Your task to perform on an android device: Add "usb-c to usb-b" to the cart on bestbuy Image 0: 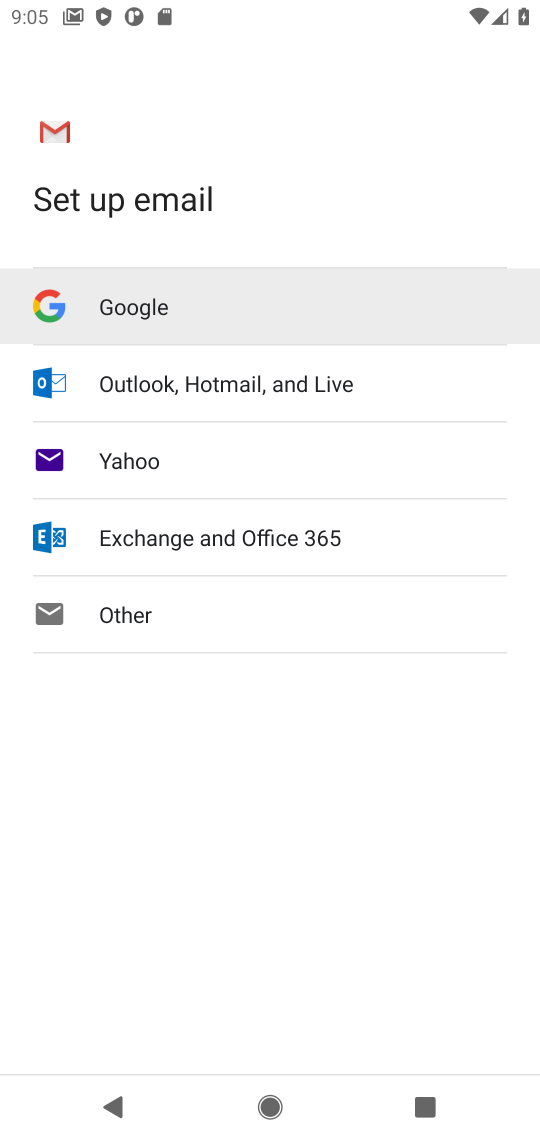
Step 0: press home button
Your task to perform on an android device: Add "usb-c to usb-b" to the cart on bestbuy Image 1: 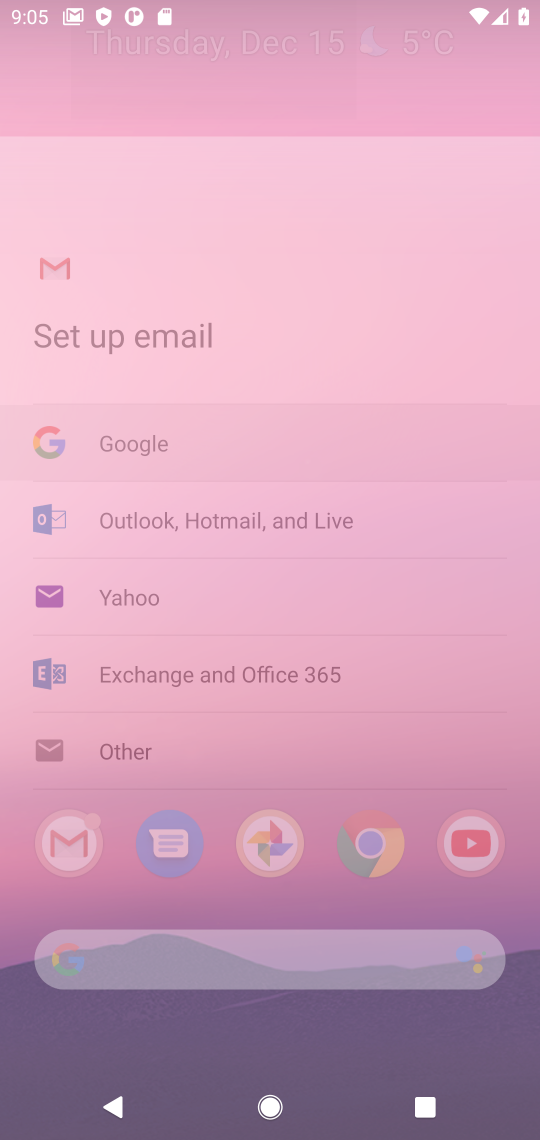
Step 1: press home button
Your task to perform on an android device: Add "usb-c to usb-b" to the cart on bestbuy Image 2: 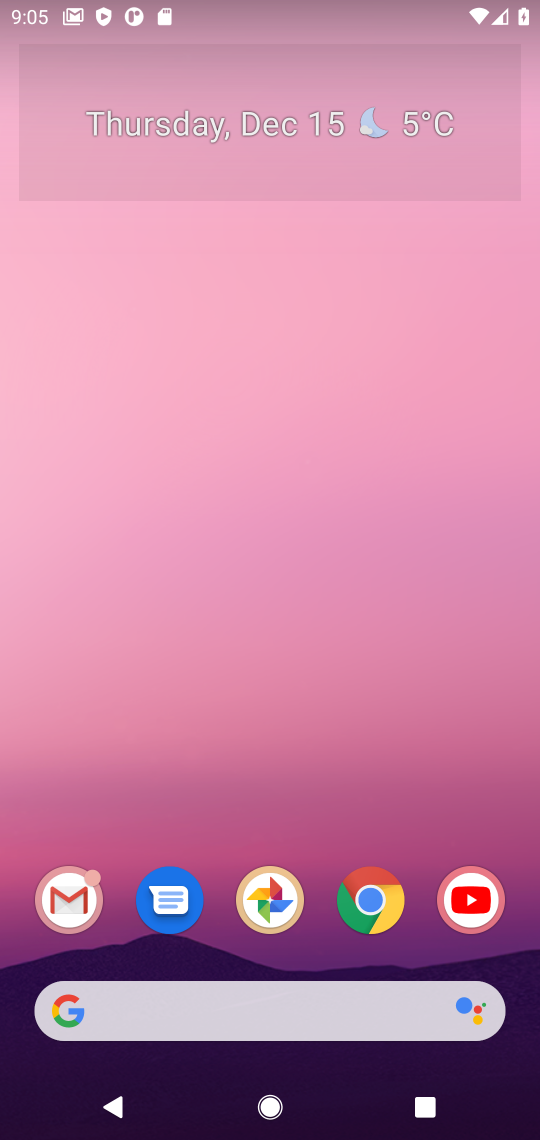
Step 2: click (371, 898)
Your task to perform on an android device: Add "usb-c to usb-b" to the cart on bestbuy Image 3: 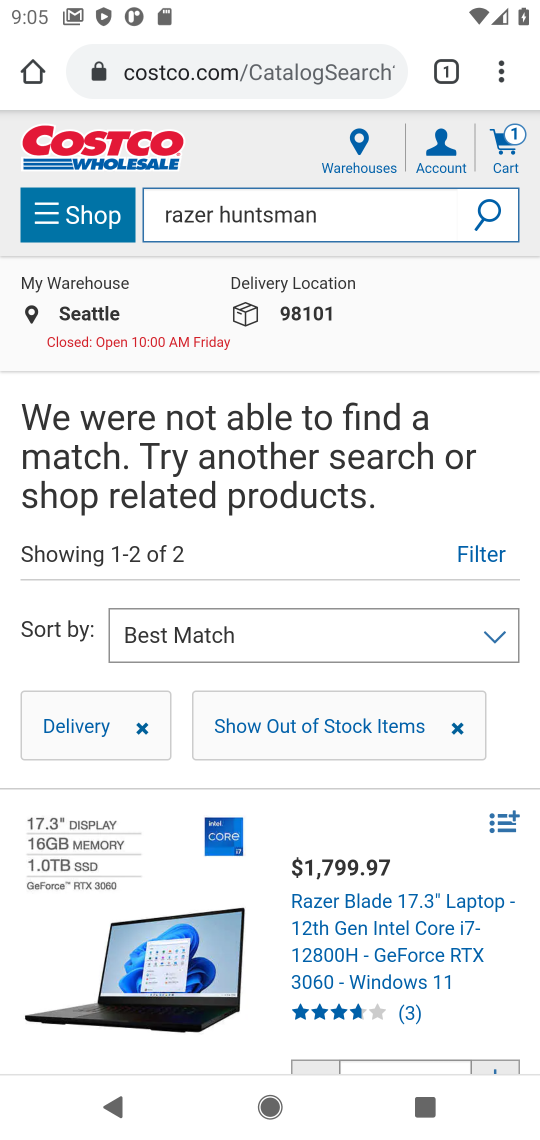
Step 3: click (314, 74)
Your task to perform on an android device: Add "usb-c to usb-b" to the cart on bestbuy Image 4: 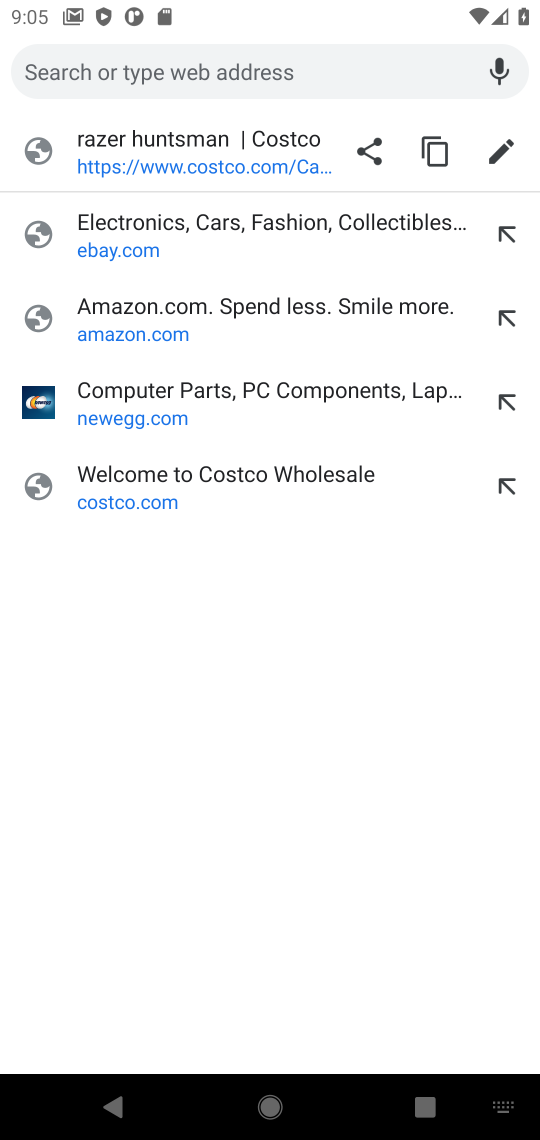
Step 4: type "bestbuy"
Your task to perform on an android device: Add "usb-c to usb-b" to the cart on bestbuy Image 5: 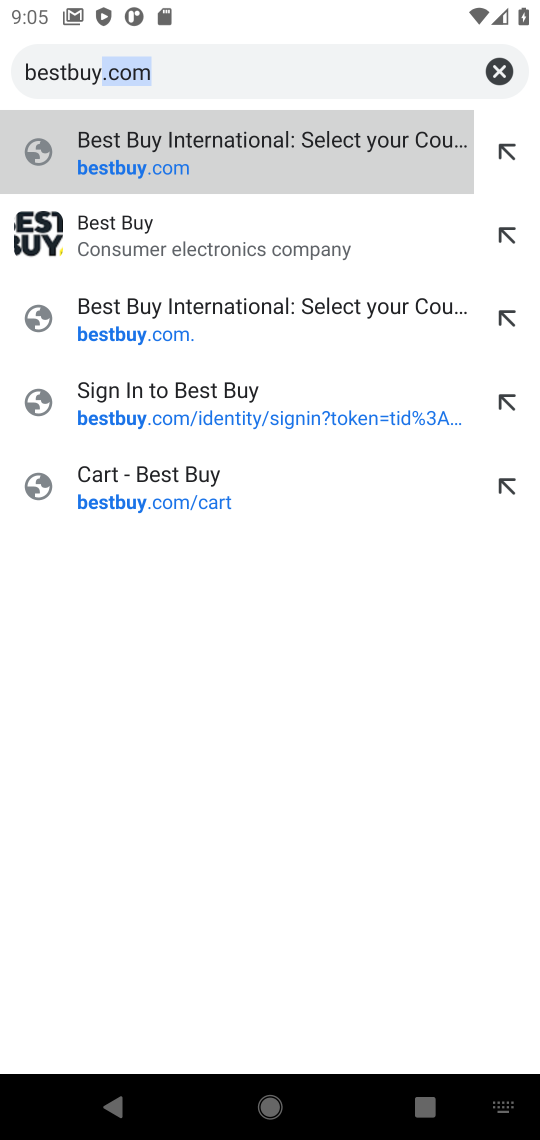
Step 5: click (285, 166)
Your task to perform on an android device: Add "usb-c to usb-b" to the cart on bestbuy Image 6: 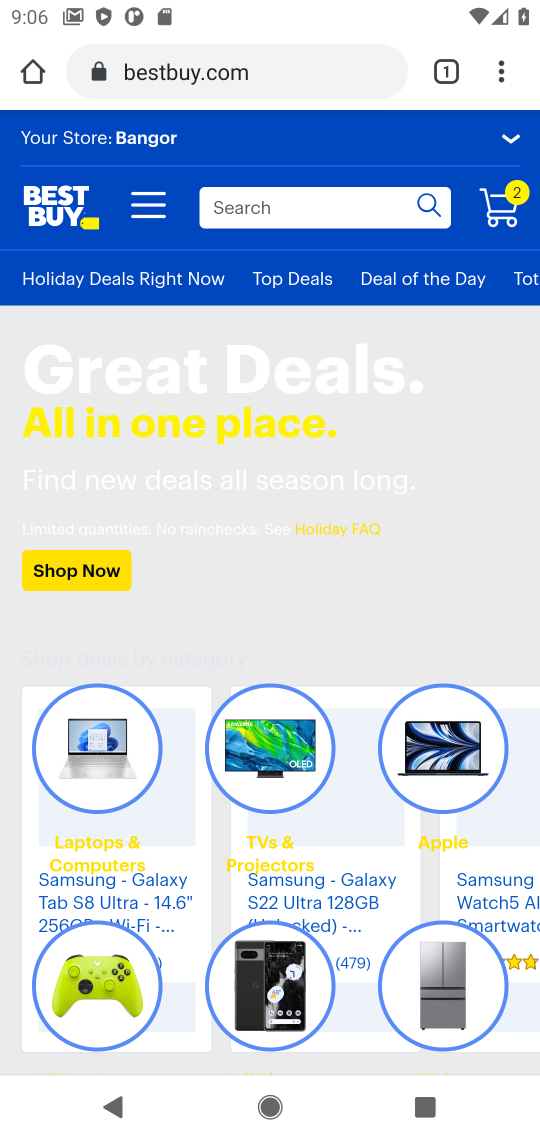
Step 6: type "usb-c to usb-b"
Your task to perform on an android device: Add "usb-c to usb-b" to the cart on bestbuy Image 7: 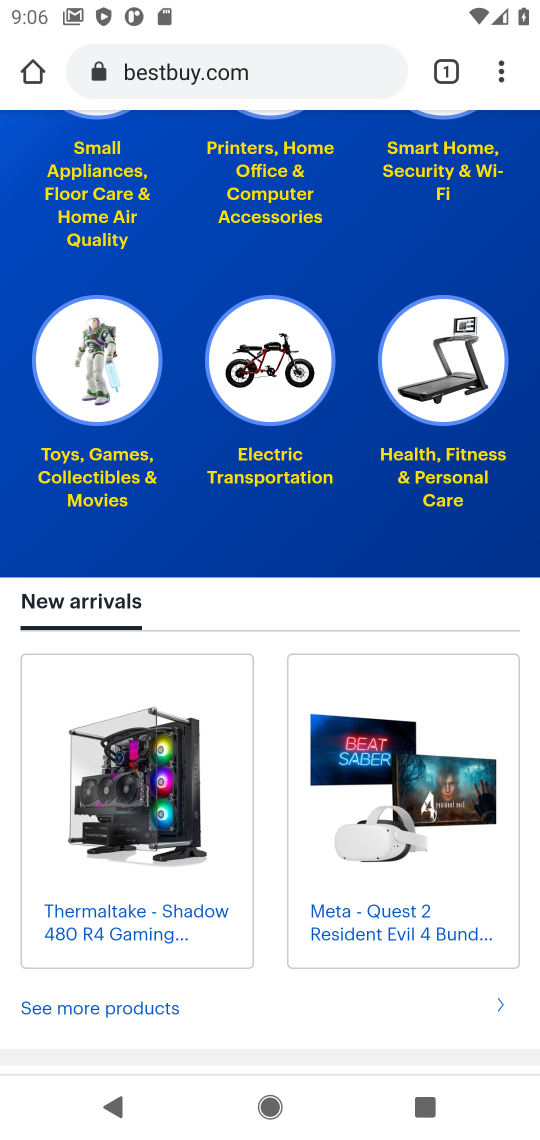
Step 7: drag from (354, 219) to (299, 1071)
Your task to perform on an android device: Add "usb-c to usb-b" to the cart on bestbuy Image 8: 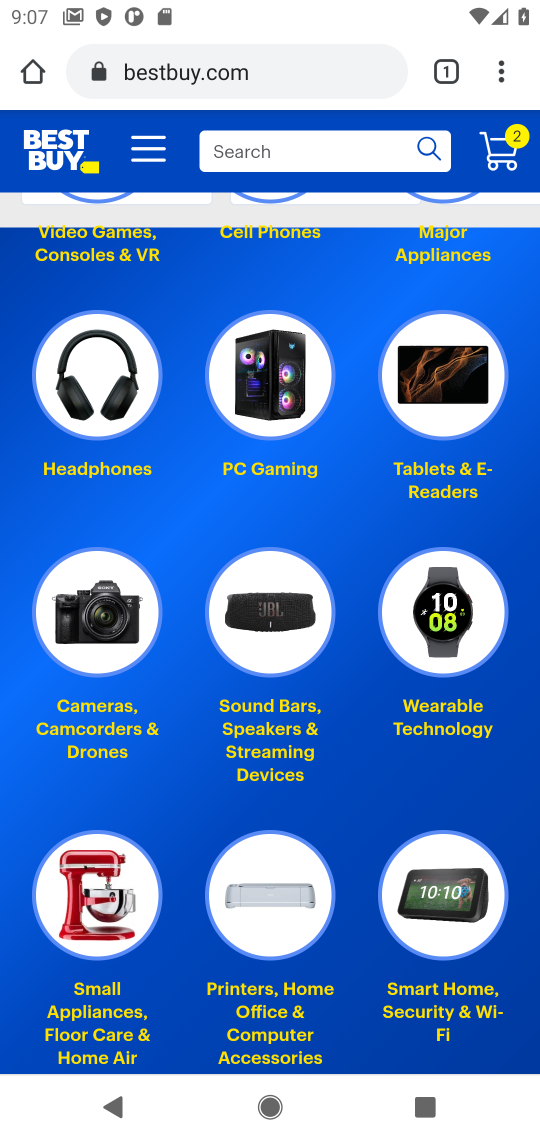
Step 8: click (279, 142)
Your task to perform on an android device: Add "usb-c to usb-b" to the cart on bestbuy Image 9: 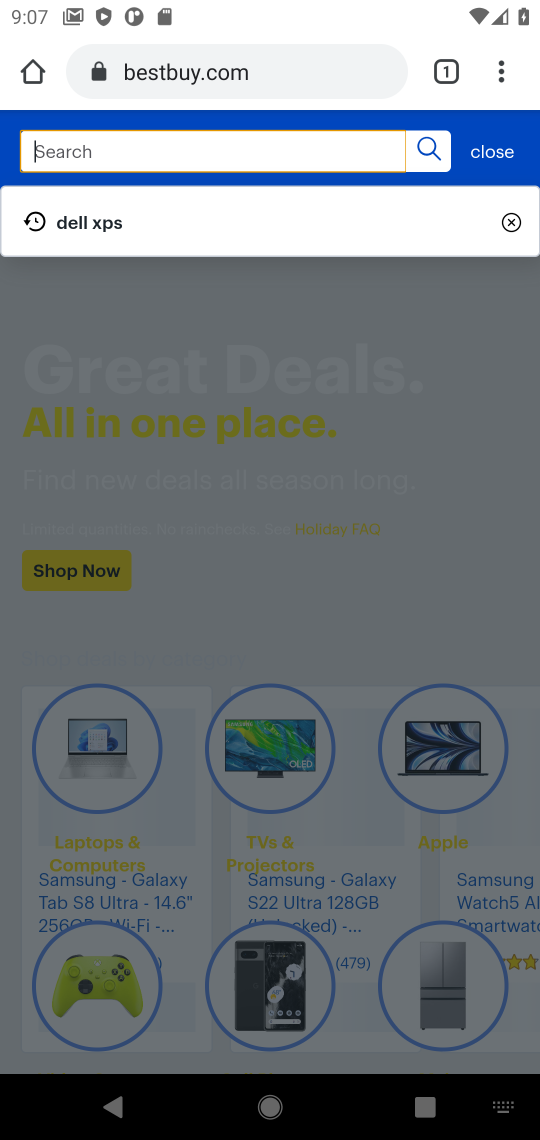
Step 9: type "usb-c to usb-b"
Your task to perform on an android device: Add "usb-c to usb-b" to the cart on bestbuy Image 10: 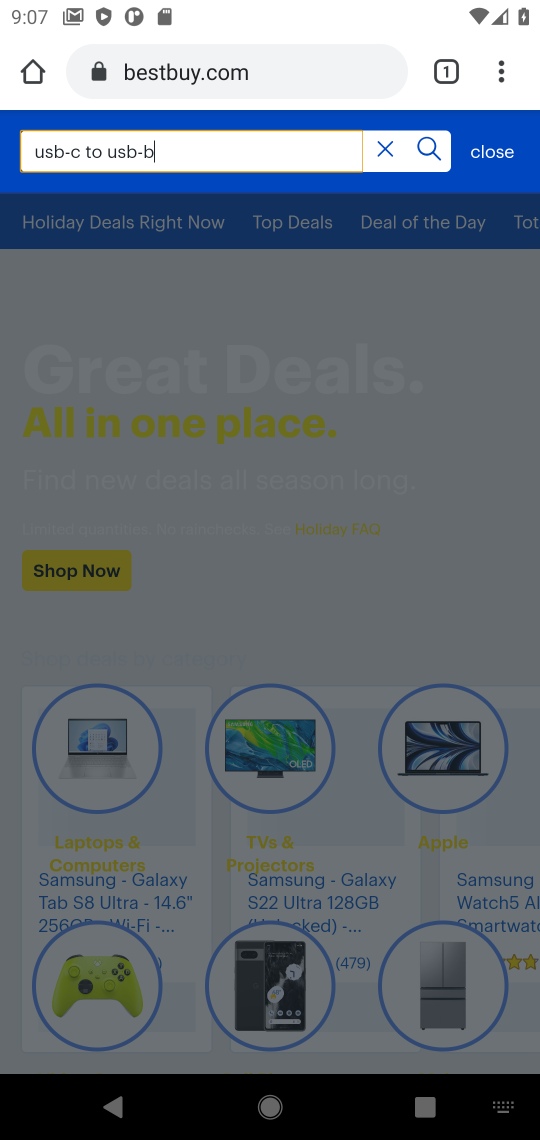
Step 10: press enter
Your task to perform on an android device: Add "usb-c to usb-b" to the cart on bestbuy Image 11: 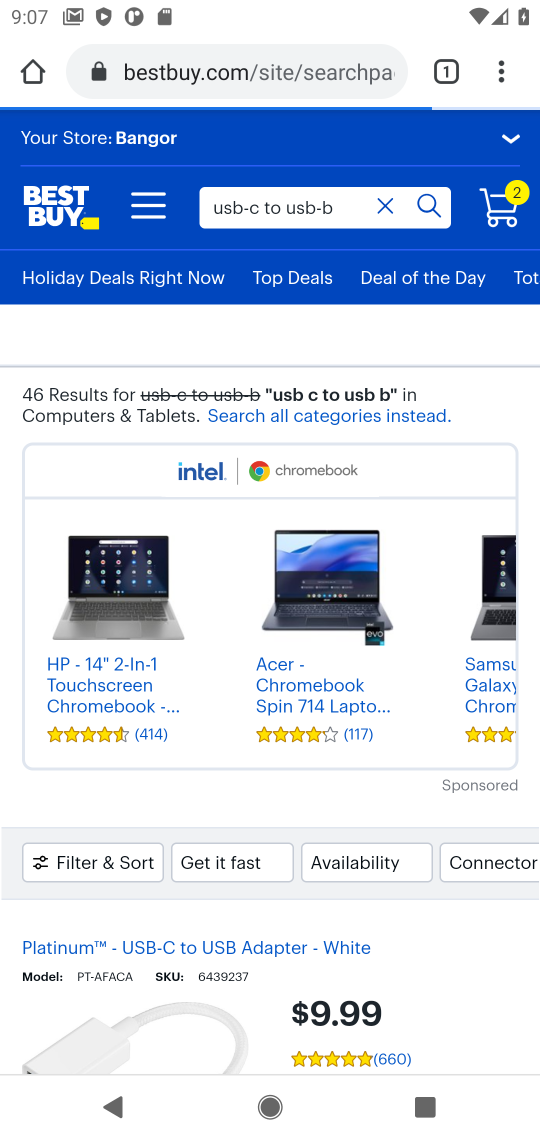
Step 11: drag from (326, 582) to (365, 187)
Your task to perform on an android device: Add "usb-c to usb-b" to the cart on bestbuy Image 12: 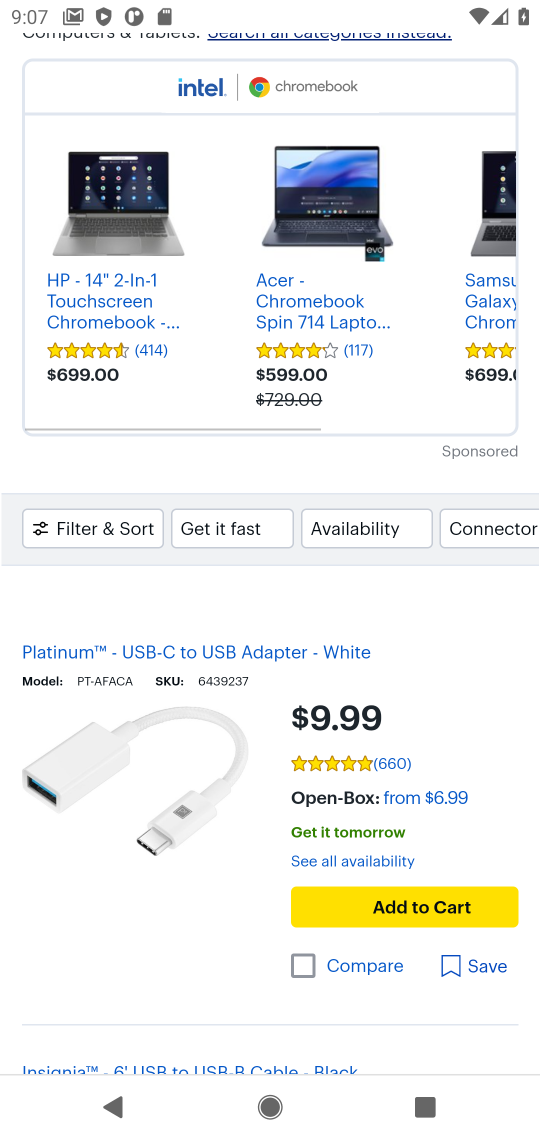
Step 12: click (394, 730)
Your task to perform on an android device: Add "usb-c to usb-b" to the cart on bestbuy Image 13: 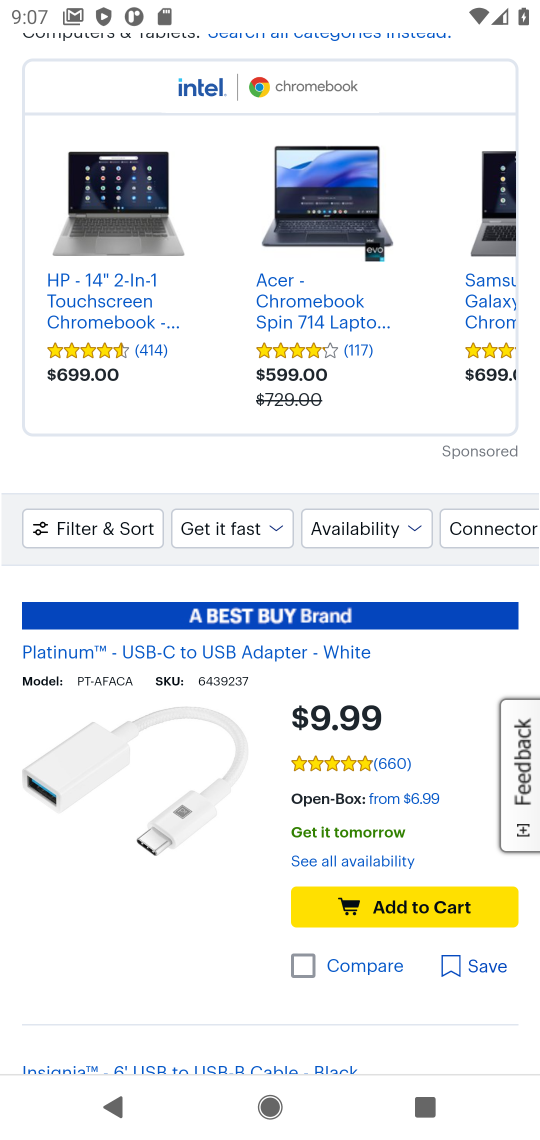
Step 13: click (397, 913)
Your task to perform on an android device: Add "usb-c to usb-b" to the cart on bestbuy Image 14: 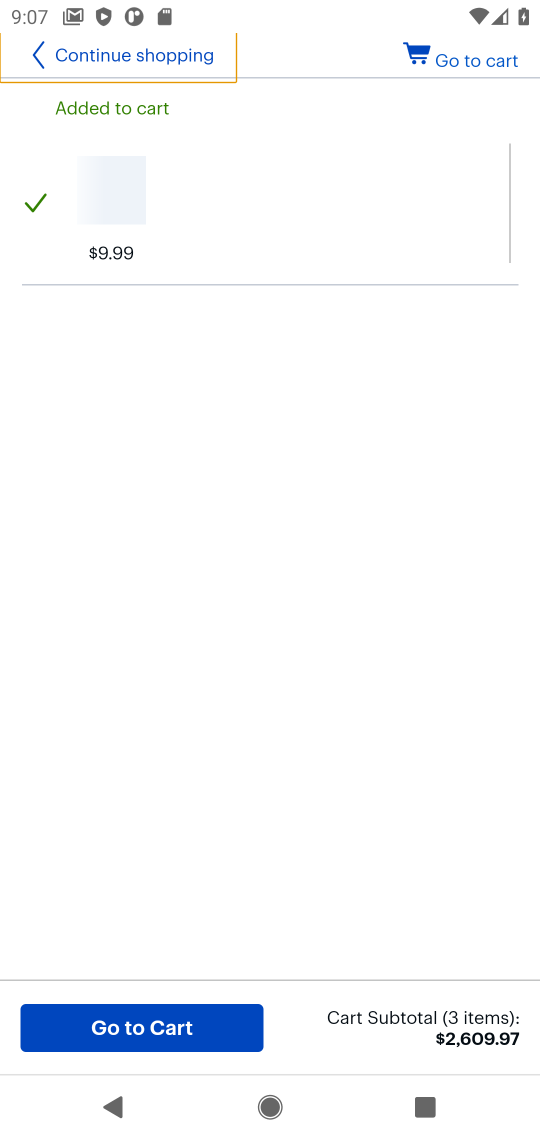
Step 14: click (188, 1030)
Your task to perform on an android device: Add "usb-c to usb-b" to the cart on bestbuy Image 15: 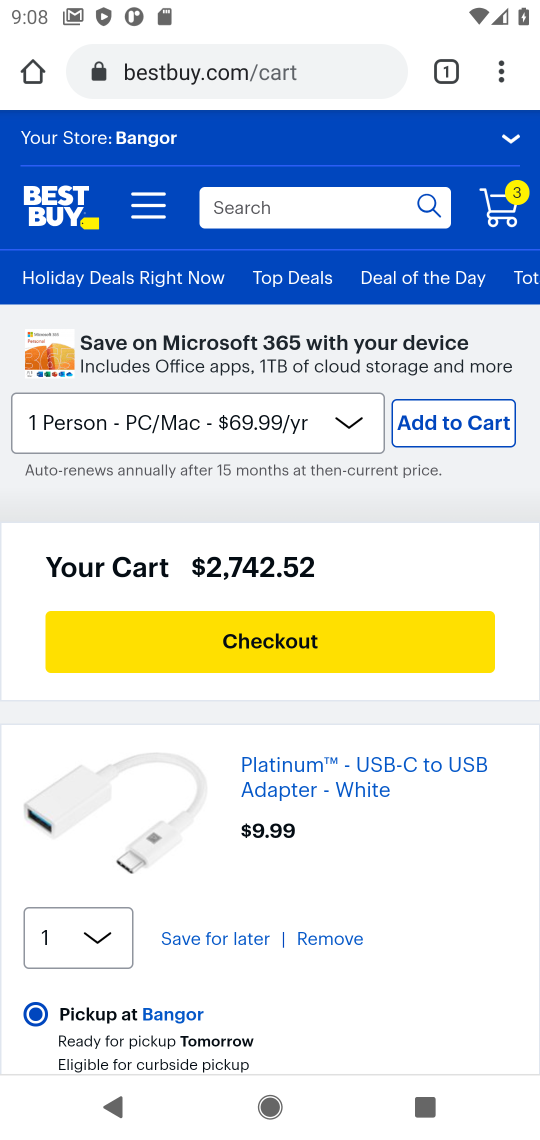
Step 15: task complete